Your task to perform on an android device: Do I have any events today? Image 0: 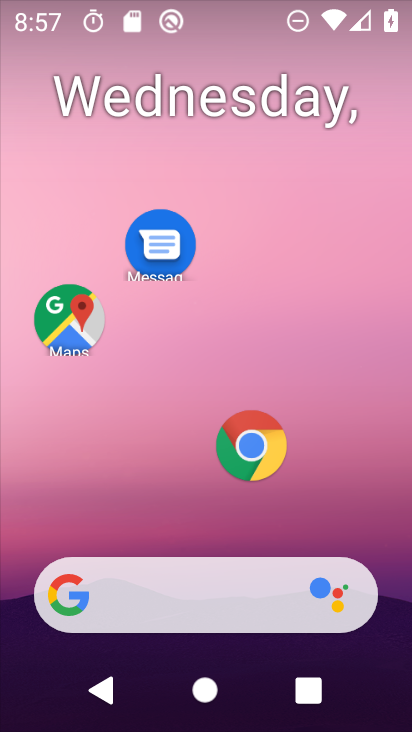
Step 0: press home button
Your task to perform on an android device: Do I have any events today? Image 1: 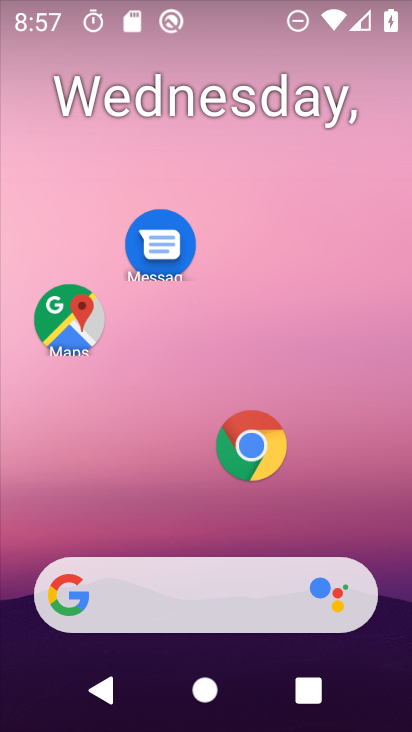
Step 1: drag from (204, 520) to (217, 27)
Your task to perform on an android device: Do I have any events today? Image 2: 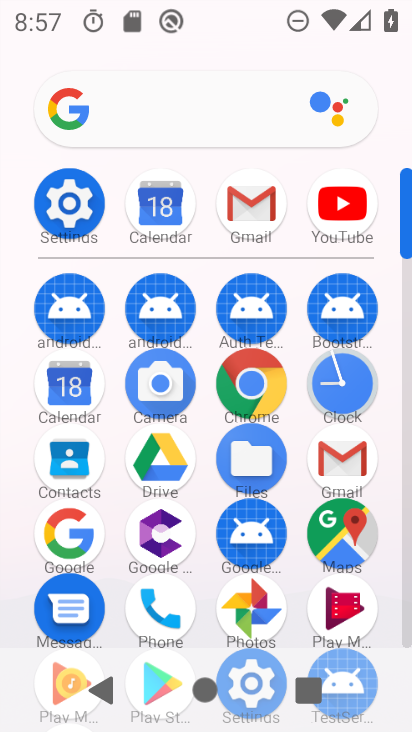
Step 2: click (162, 202)
Your task to perform on an android device: Do I have any events today? Image 3: 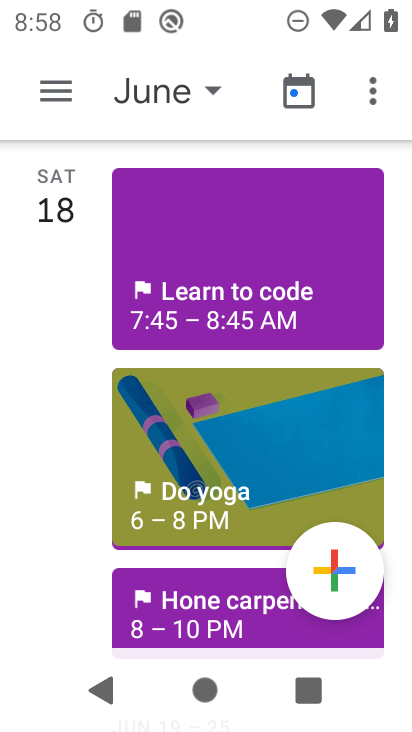
Step 3: click (208, 87)
Your task to perform on an android device: Do I have any events today? Image 4: 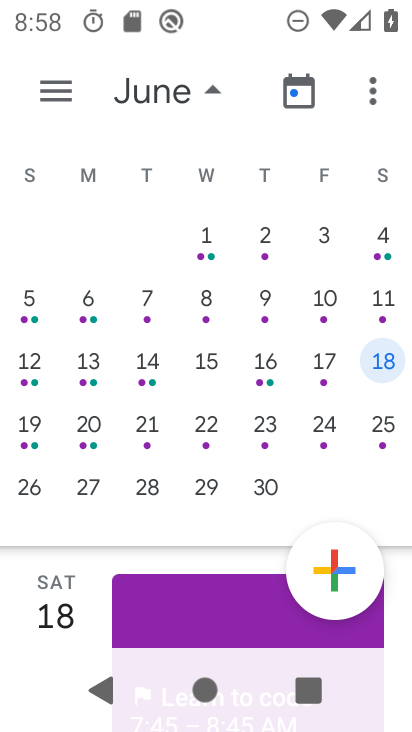
Step 4: drag from (38, 388) to (368, 347)
Your task to perform on an android device: Do I have any events today? Image 5: 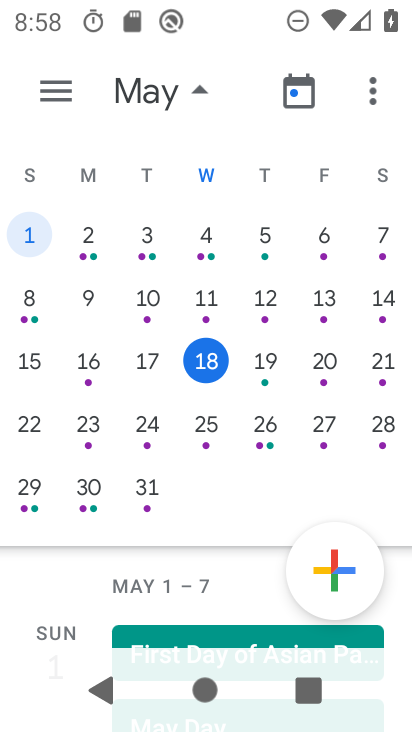
Step 5: click (207, 364)
Your task to perform on an android device: Do I have any events today? Image 6: 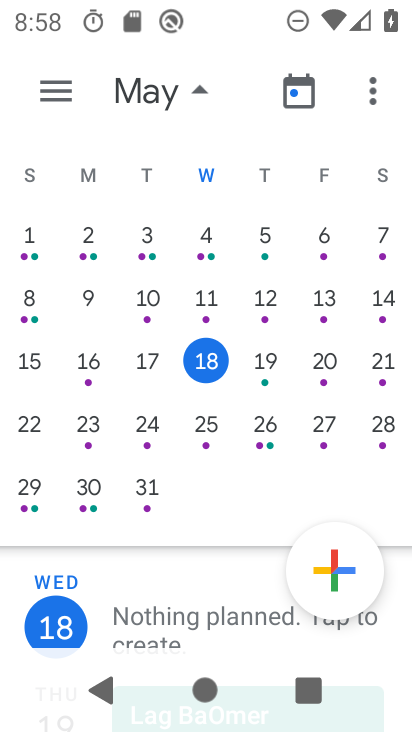
Step 6: click (189, 93)
Your task to perform on an android device: Do I have any events today? Image 7: 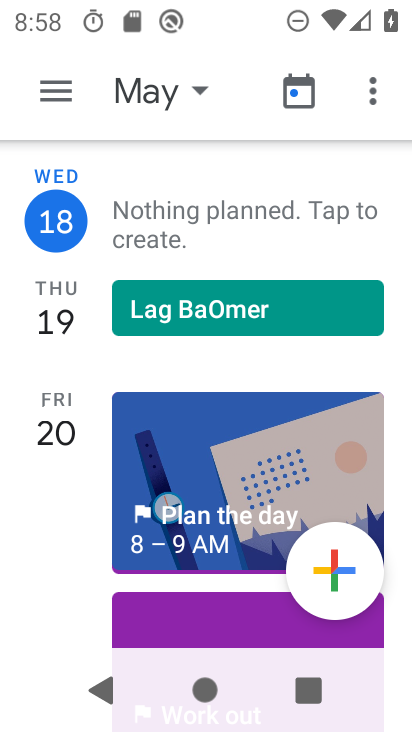
Step 7: click (64, 249)
Your task to perform on an android device: Do I have any events today? Image 8: 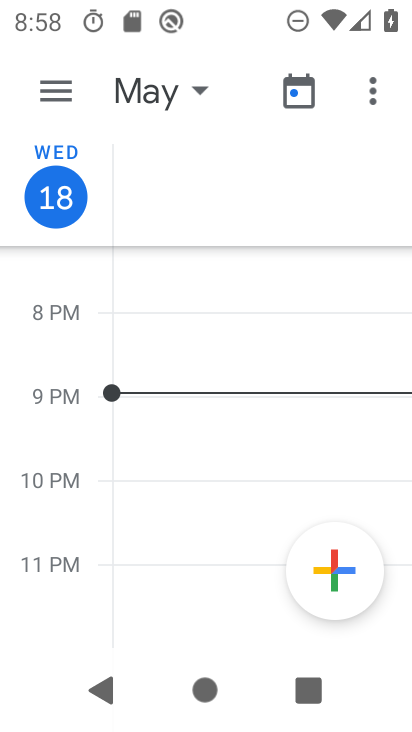
Step 8: task complete